Your task to perform on an android device: clear all cookies in the chrome app Image 0: 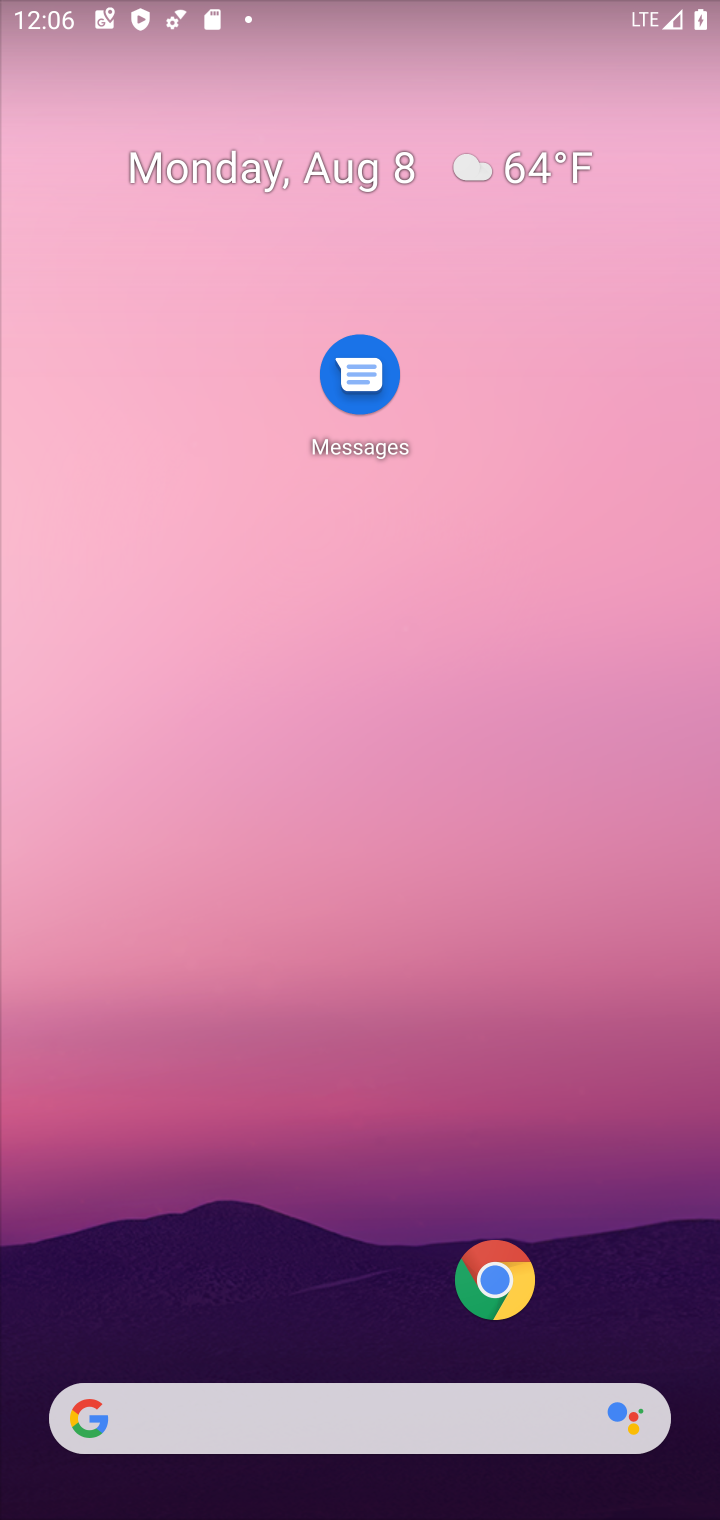
Step 0: click (490, 1261)
Your task to perform on an android device: clear all cookies in the chrome app Image 1: 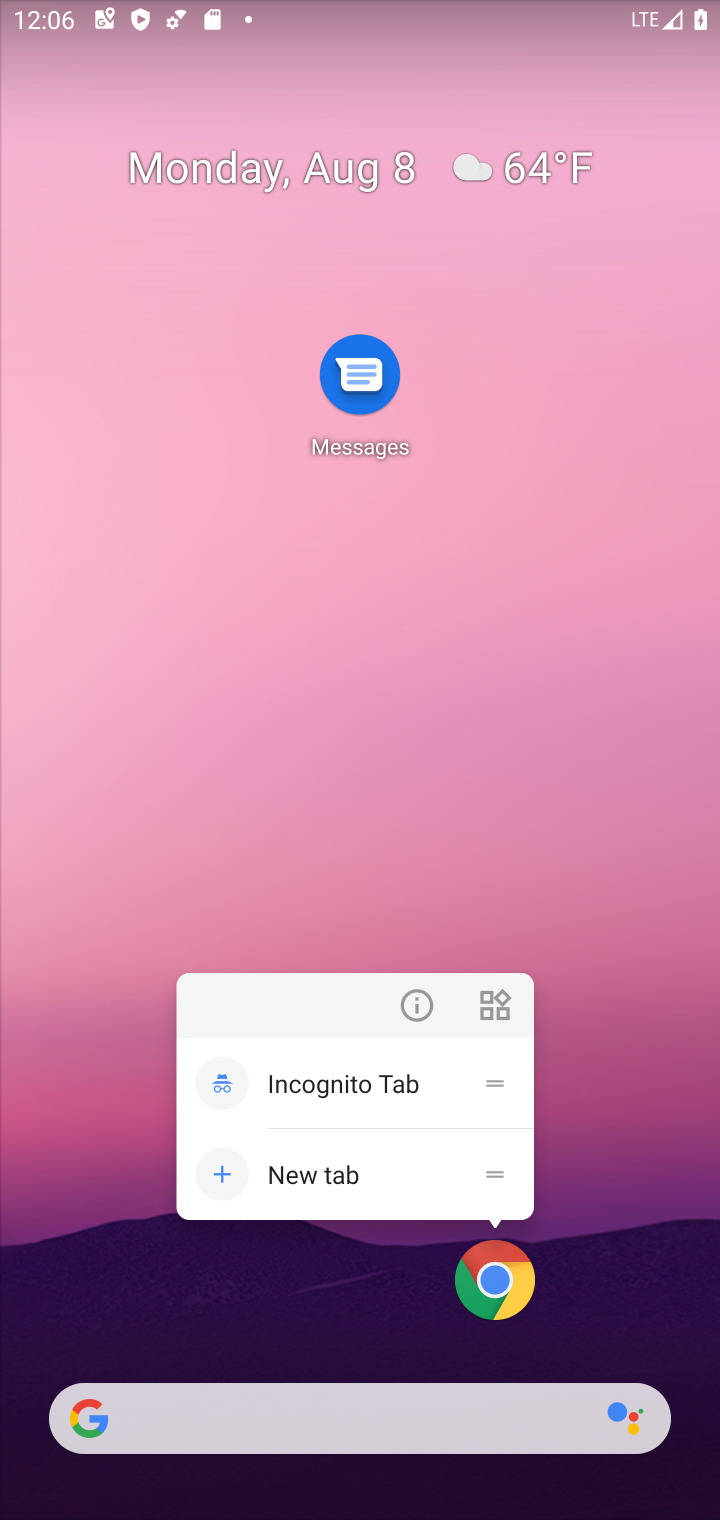
Step 1: click (512, 1275)
Your task to perform on an android device: clear all cookies in the chrome app Image 2: 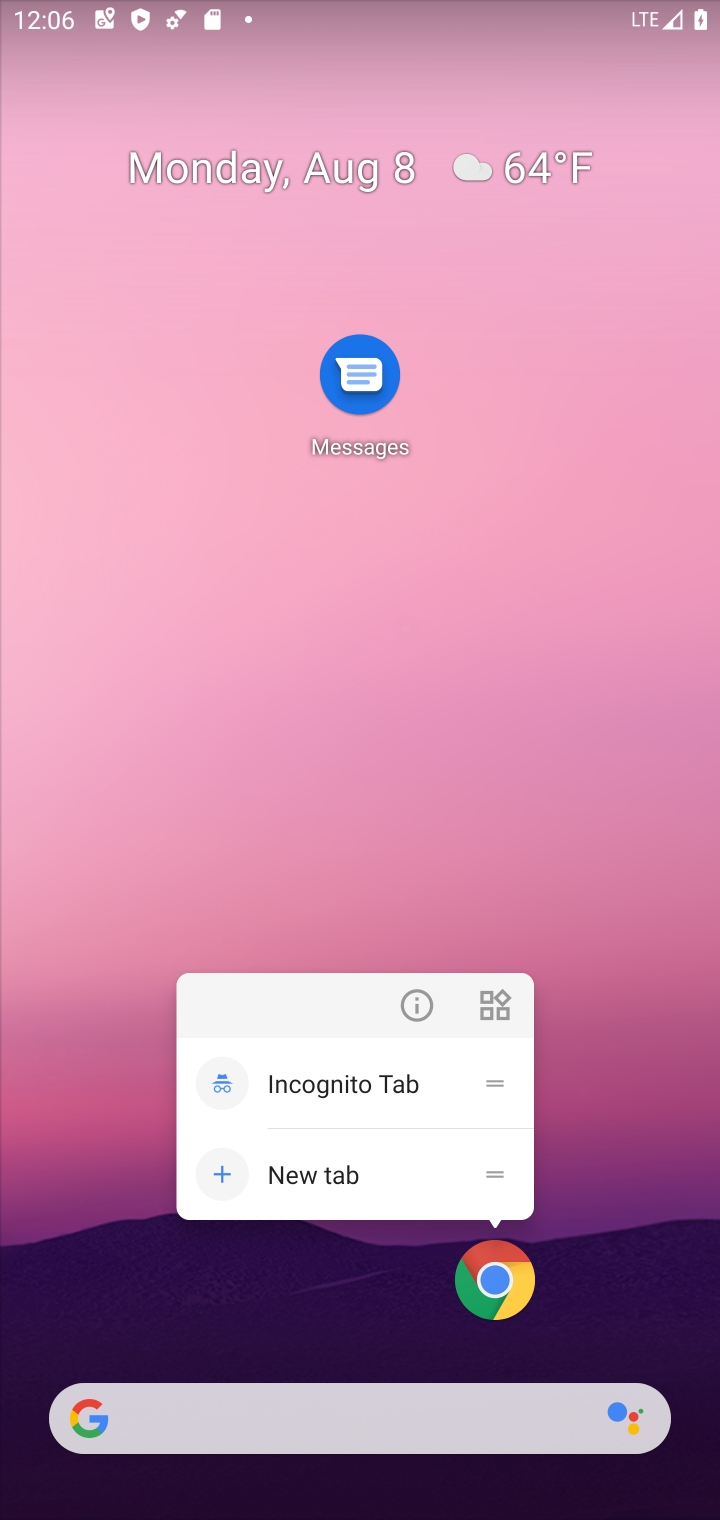
Step 2: click (519, 1271)
Your task to perform on an android device: clear all cookies in the chrome app Image 3: 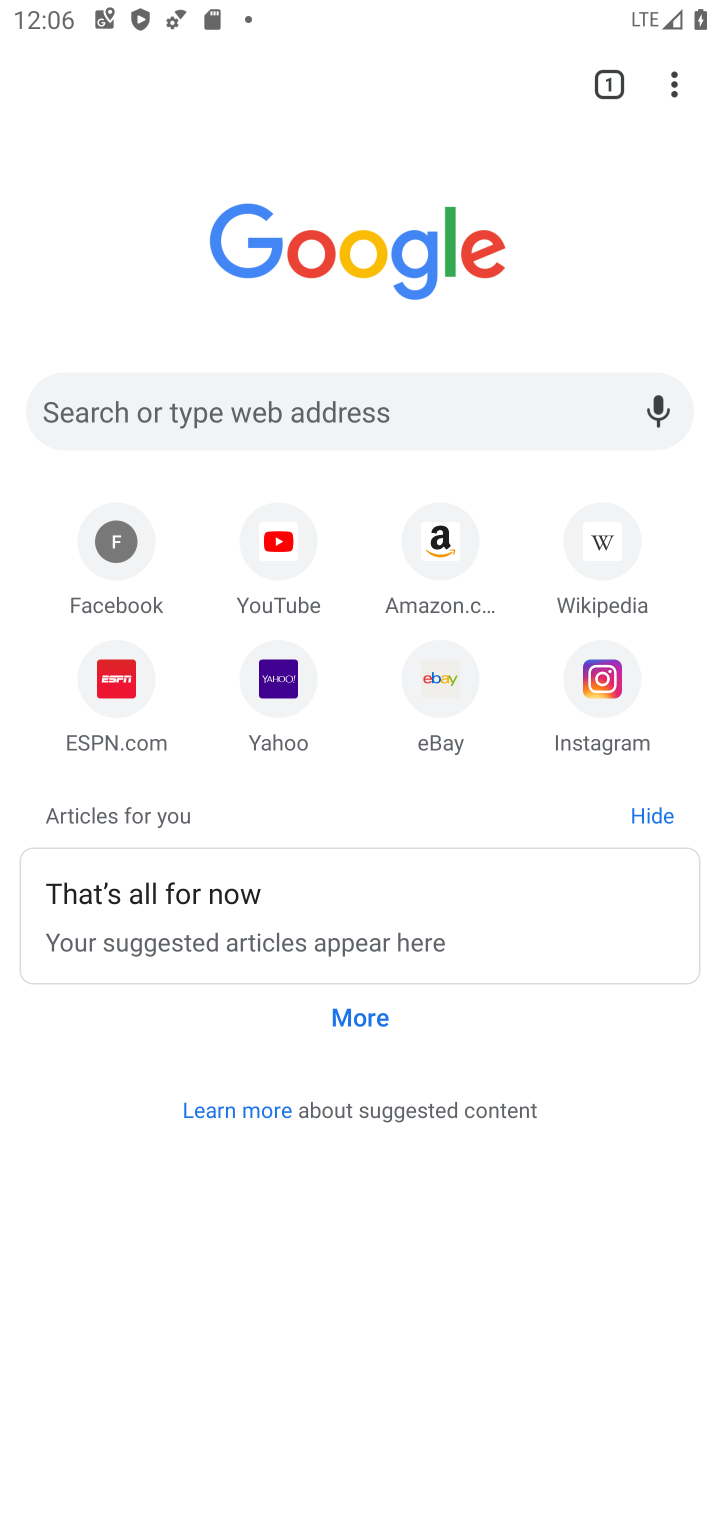
Step 3: task complete